Your task to perform on an android device: find which apps use the phone's location Image 0: 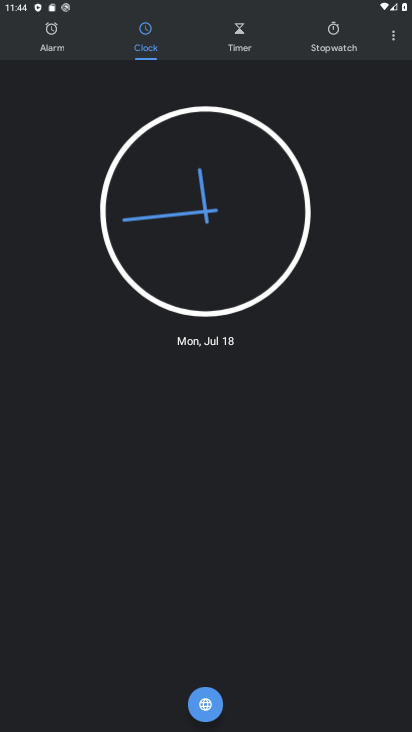
Step 0: press back button
Your task to perform on an android device: find which apps use the phone's location Image 1: 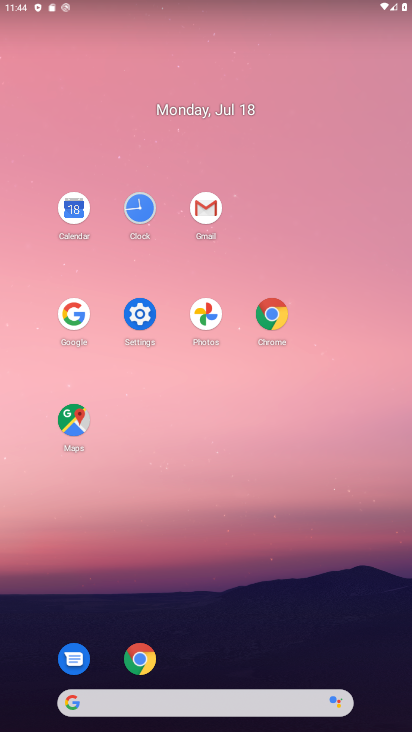
Step 1: click (136, 318)
Your task to perform on an android device: find which apps use the phone's location Image 2: 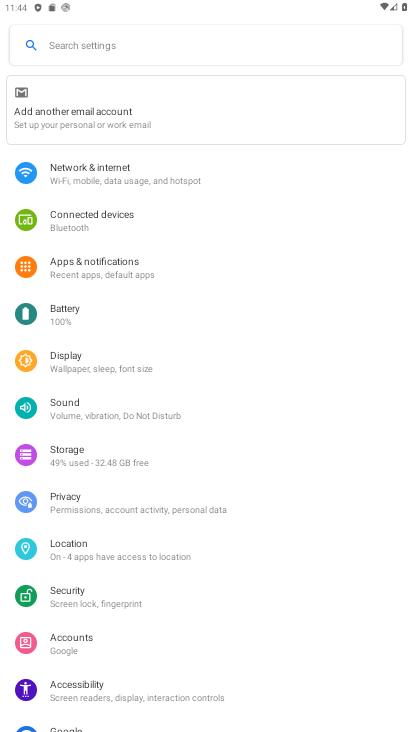
Step 2: click (120, 549)
Your task to perform on an android device: find which apps use the phone's location Image 3: 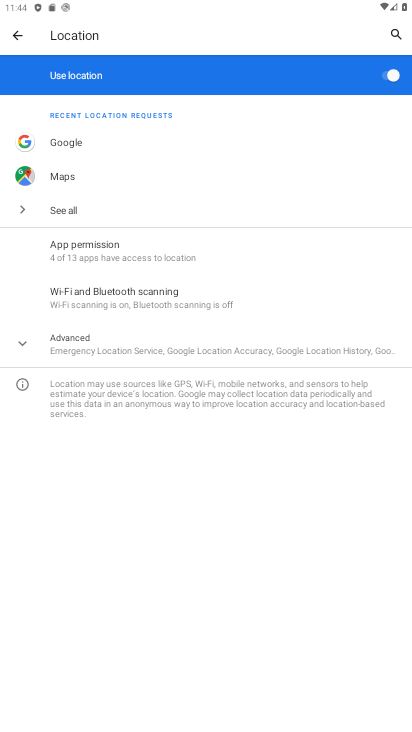
Step 3: task complete